Your task to perform on an android device: turn vacation reply on in the gmail app Image 0: 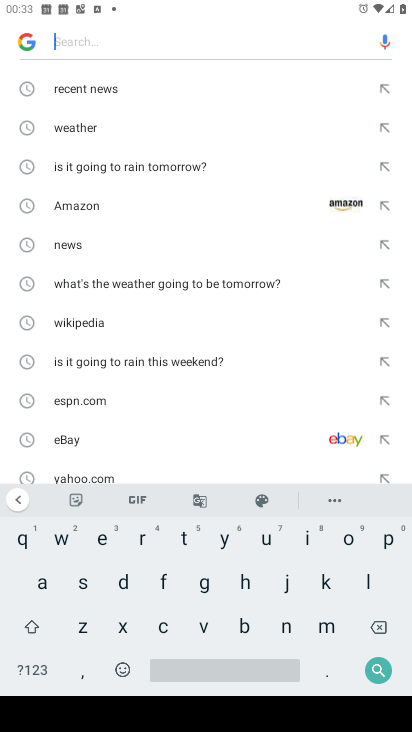
Step 0: press home button
Your task to perform on an android device: turn vacation reply on in the gmail app Image 1: 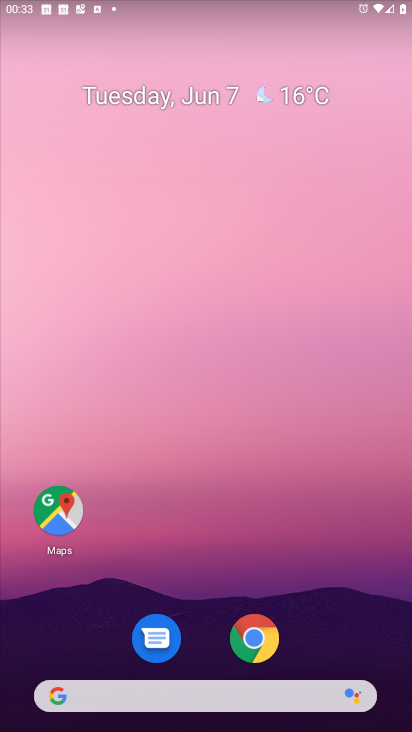
Step 1: drag from (177, 668) to (247, 225)
Your task to perform on an android device: turn vacation reply on in the gmail app Image 2: 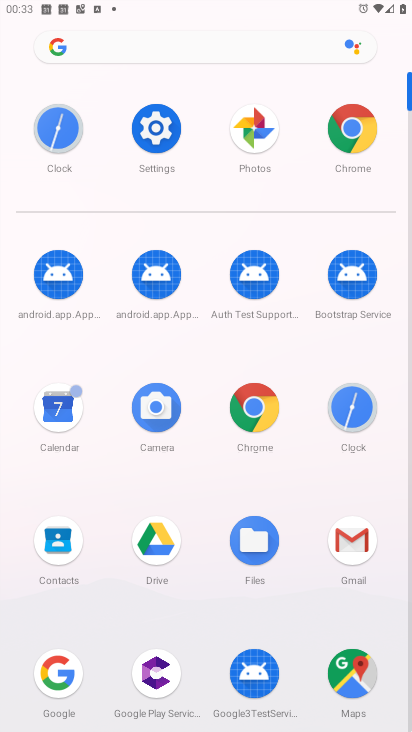
Step 2: click (351, 532)
Your task to perform on an android device: turn vacation reply on in the gmail app Image 3: 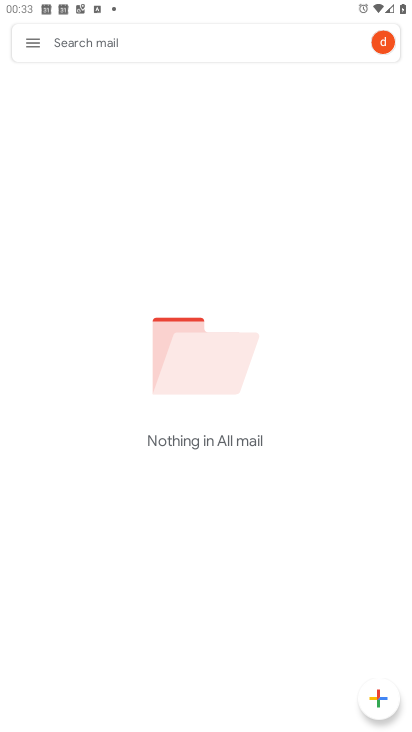
Step 3: click (43, 42)
Your task to perform on an android device: turn vacation reply on in the gmail app Image 4: 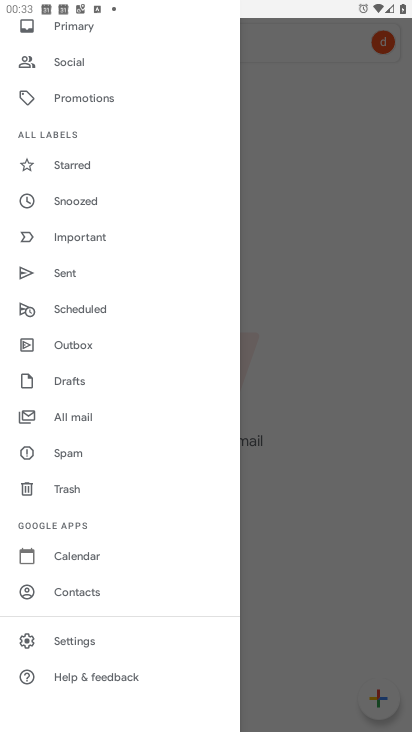
Step 4: click (98, 640)
Your task to perform on an android device: turn vacation reply on in the gmail app Image 5: 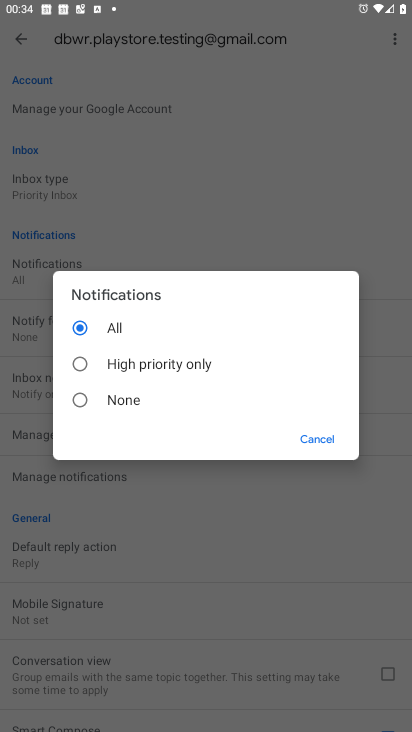
Step 5: click (312, 440)
Your task to perform on an android device: turn vacation reply on in the gmail app Image 6: 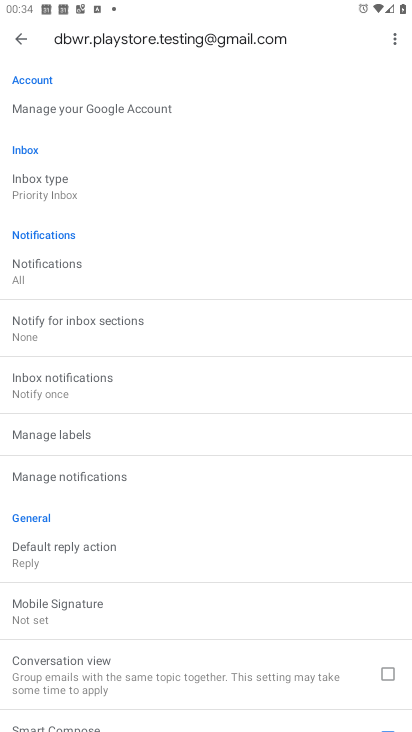
Step 6: drag from (163, 611) to (169, 293)
Your task to perform on an android device: turn vacation reply on in the gmail app Image 7: 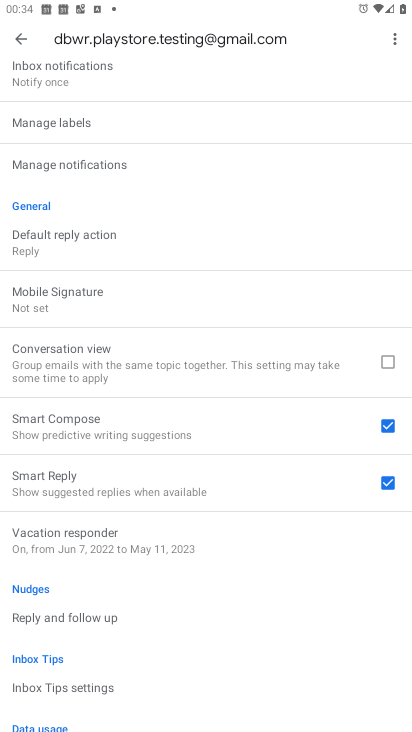
Step 7: click (169, 538)
Your task to perform on an android device: turn vacation reply on in the gmail app Image 8: 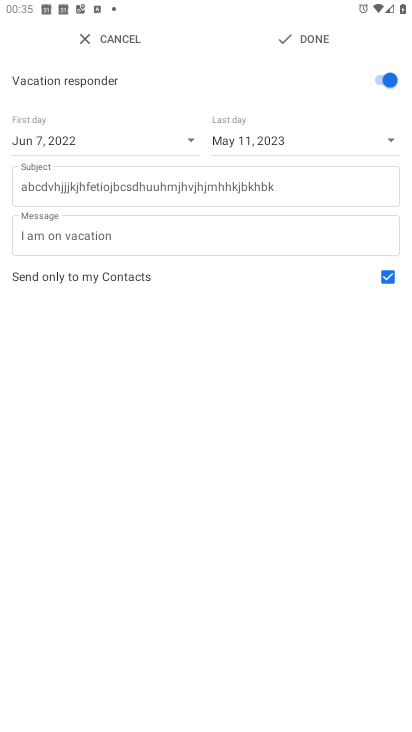
Step 8: task complete